Your task to perform on an android device: What's on my calendar tomorrow? Image 0: 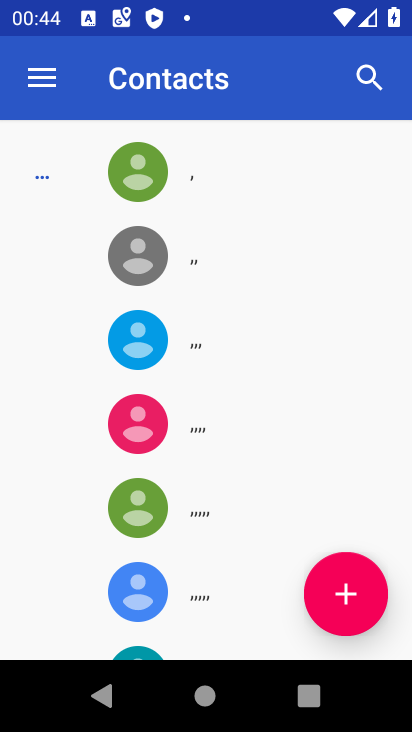
Step 0: press home button
Your task to perform on an android device: What's on my calendar tomorrow? Image 1: 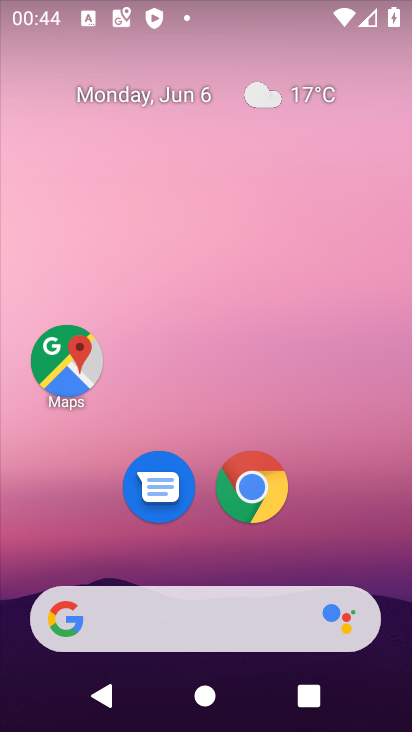
Step 1: drag from (405, 631) to (290, 83)
Your task to perform on an android device: What's on my calendar tomorrow? Image 2: 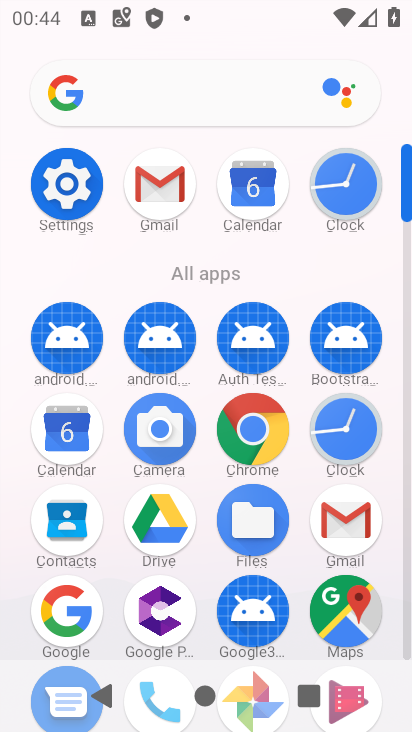
Step 2: click (65, 430)
Your task to perform on an android device: What's on my calendar tomorrow? Image 3: 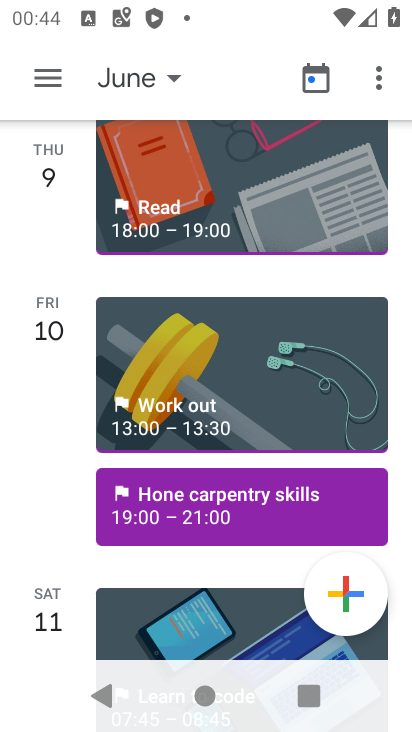
Step 3: click (44, 83)
Your task to perform on an android device: What's on my calendar tomorrow? Image 4: 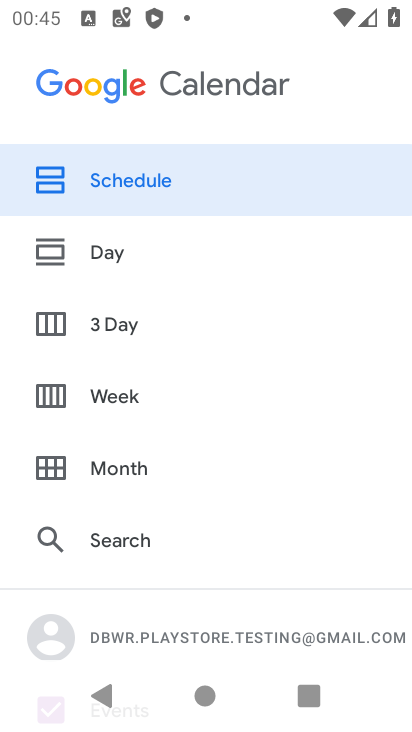
Step 4: click (96, 249)
Your task to perform on an android device: What's on my calendar tomorrow? Image 5: 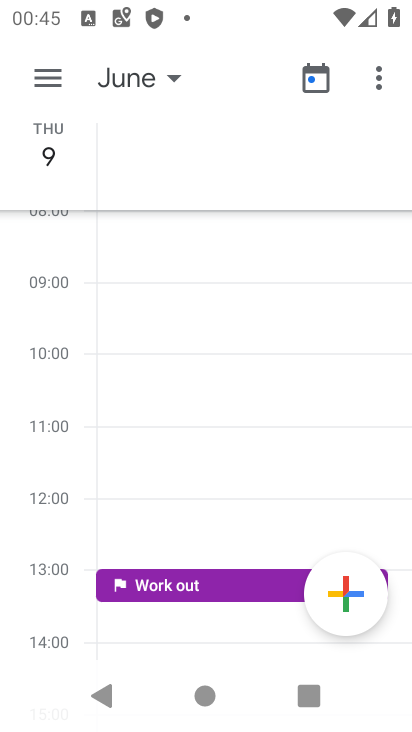
Step 5: click (176, 71)
Your task to perform on an android device: What's on my calendar tomorrow? Image 6: 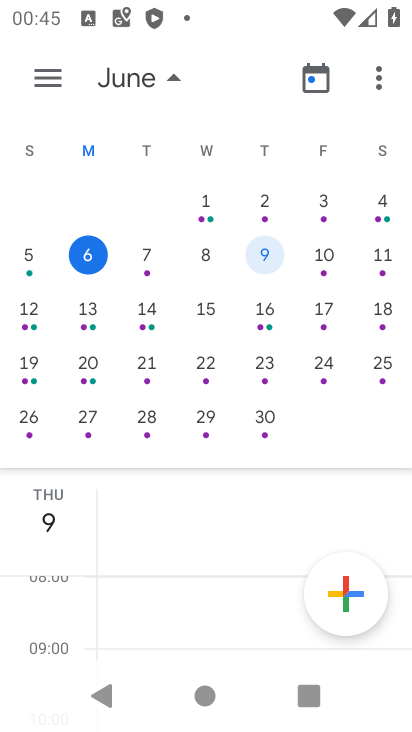
Step 6: click (146, 254)
Your task to perform on an android device: What's on my calendar tomorrow? Image 7: 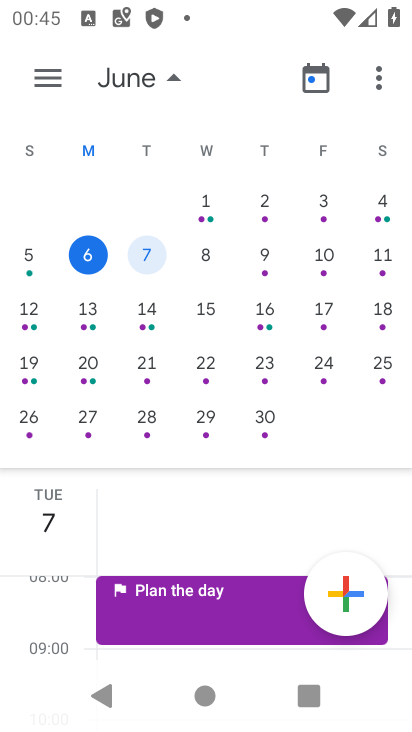
Step 7: task complete